Your task to perform on an android device: Go to Google maps Image 0: 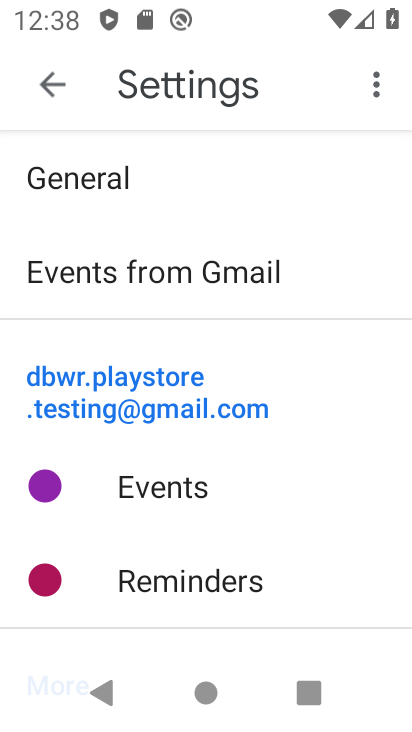
Step 0: press home button
Your task to perform on an android device: Go to Google maps Image 1: 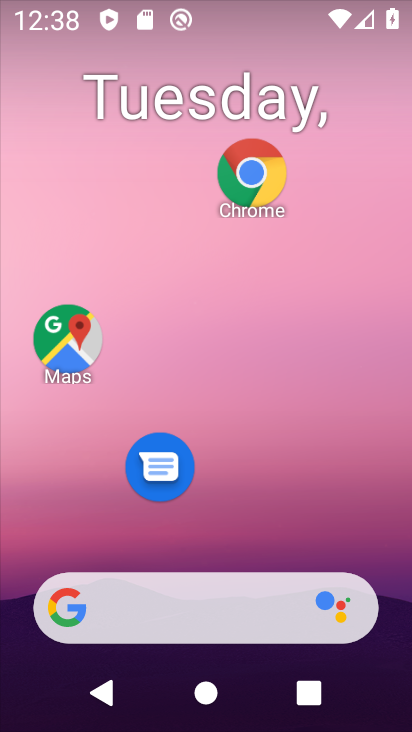
Step 1: drag from (239, 395) to (280, 2)
Your task to perform on an android device: Go to Google maps Image 2: 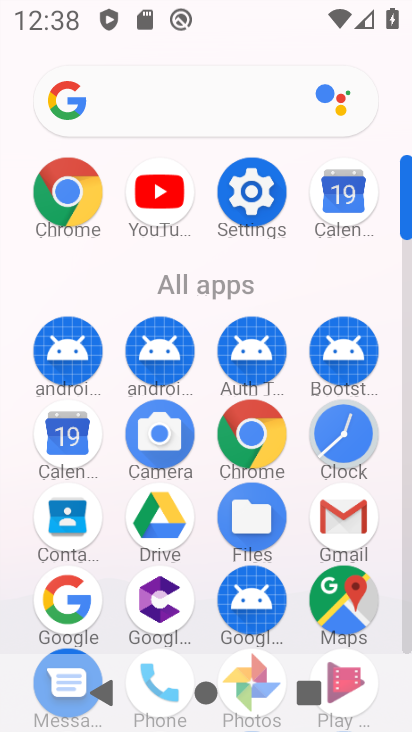
Step 2: click (352, 578)
Your task to perform on an android device: Go to Google maps Image 3: 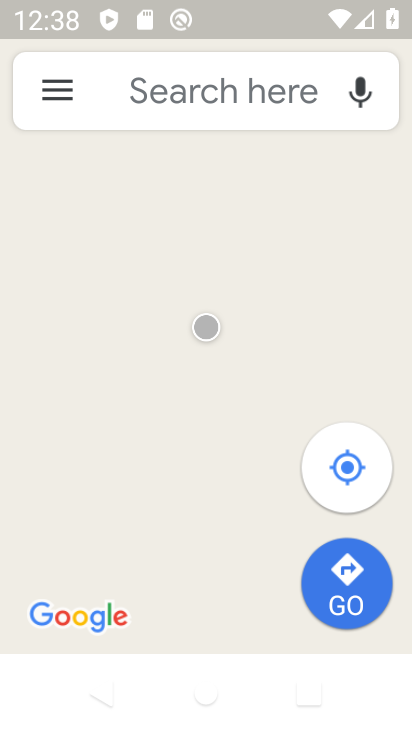
Step 3: task complete